Your task to perform on an android device: Open maps Image 0: 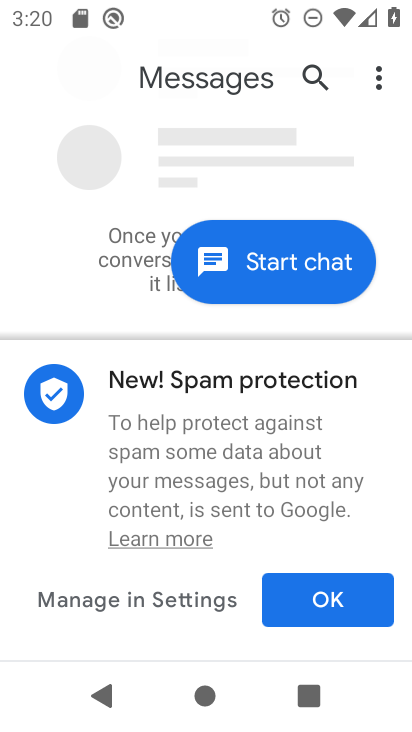
Step 0: press home button
Your task to perform on an android device: Open maps Image 1: 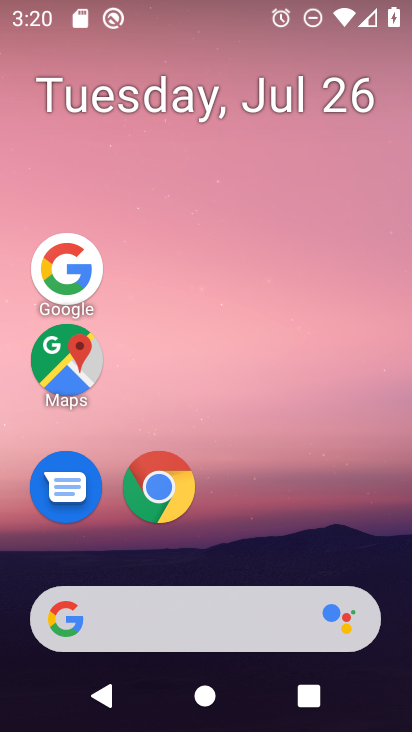
Step 1: drag from (214, 608) to (311, 46)
Your task to perform on an android device: Open maps Image 2: 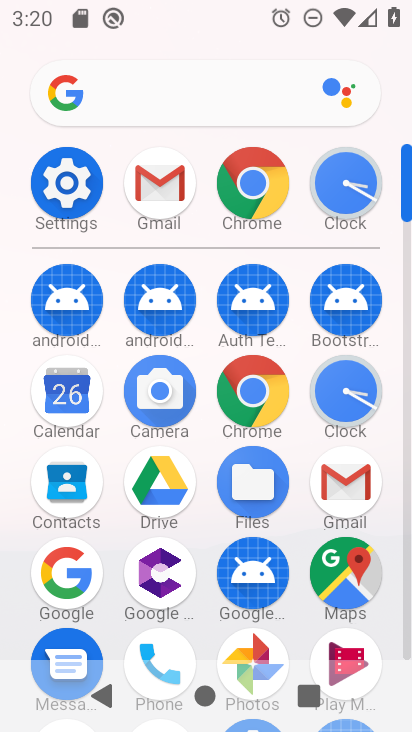
Step 2: click (355, 600)
Your task to perform on an android device: Open maps Image 3: 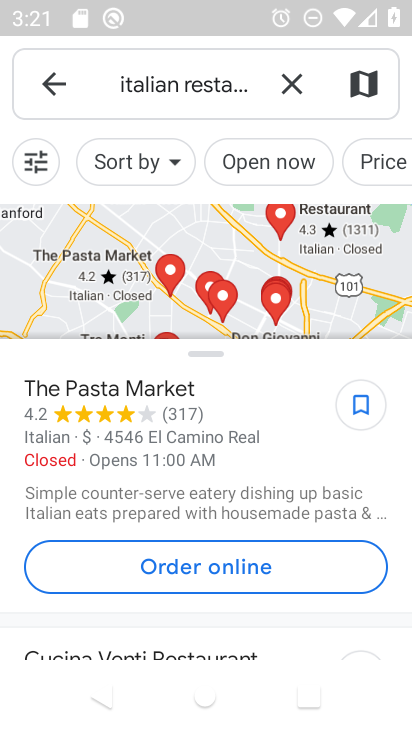
Step 3: task complete